Your task to perform on an android device: Open Yahoo.com Image 0: 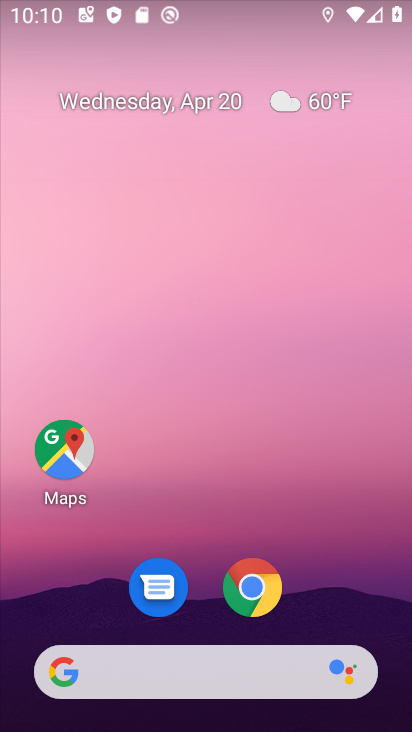
Step 0: click (261, 593)
Your task to perform on an android device: Open Yahoo.com Image 1: 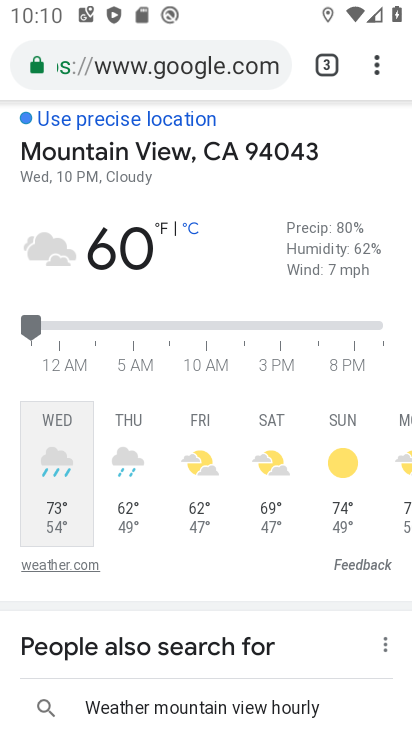
Step 1: click (330, 63)
Your task to perform on an android device: Open Yahoo.com Image 2: 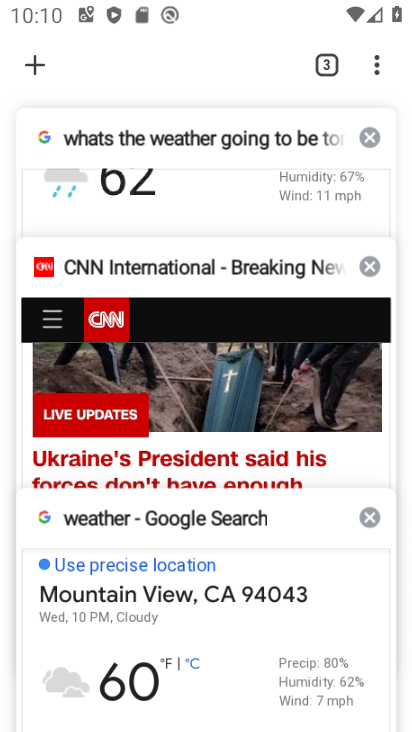
Step 2: click (33, 60)
Your task to perform on an android device: Open Yahoo.com Image 3: 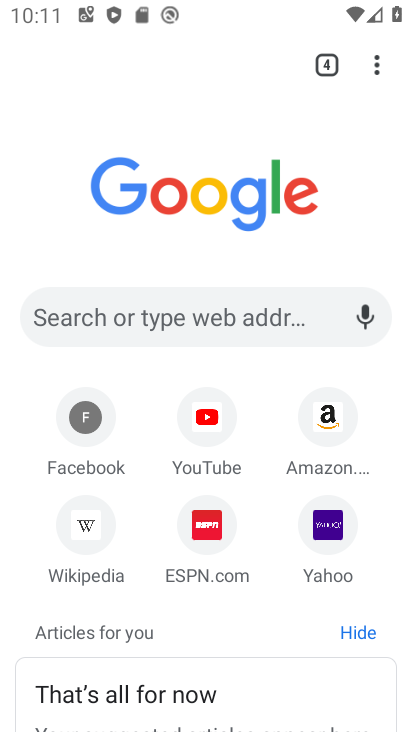
Step 3: click (322, 529)
Your task to perform on an android device: Open Yahoo.com Image 4: 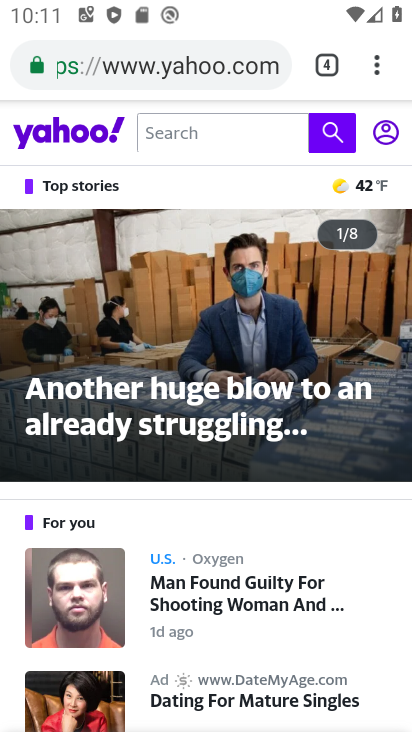
Step 4: task complete